Your task to perform on an android device: open the mobile data screen to see how much data has been used Image 0: 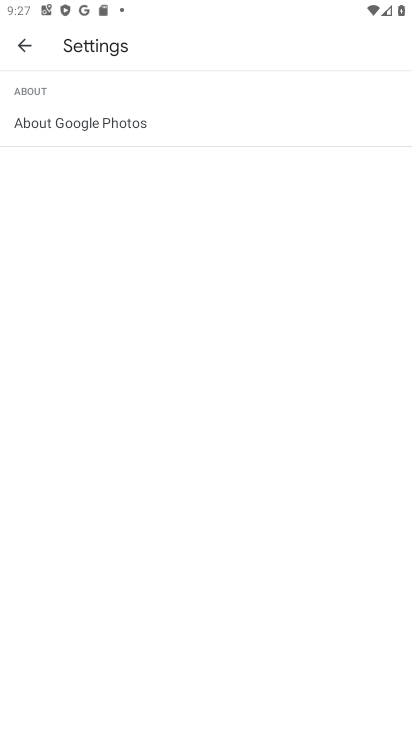
Step 0: press home button
Your task to perform on an android device: open the mobile data screen to see how much data has been used Image 1: 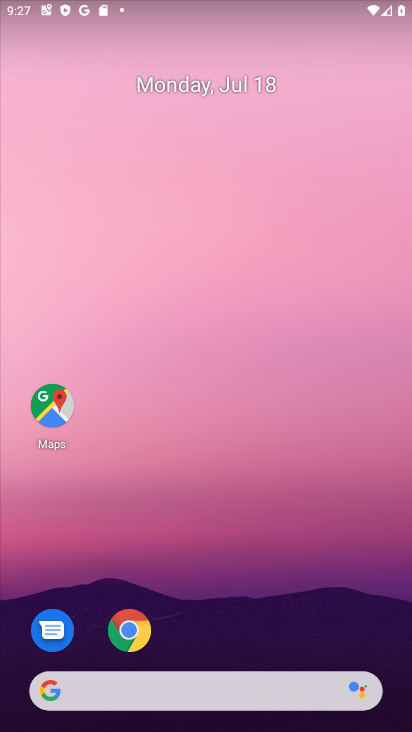
Step 1: drag from (393, 660) to (256, 58)
Your task to perform on an android device: open the mobile data screen to see how much data has been used Image 2: 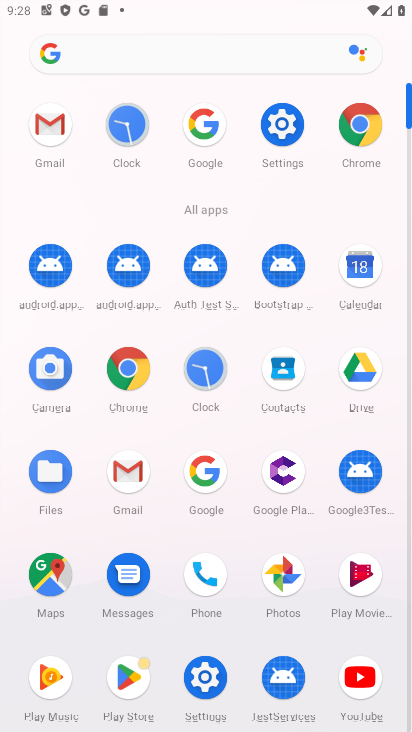
Step 2: click (289, 120)
Your task to perform on an android device: open the mobile data screen to see how much data has been used Image 3: 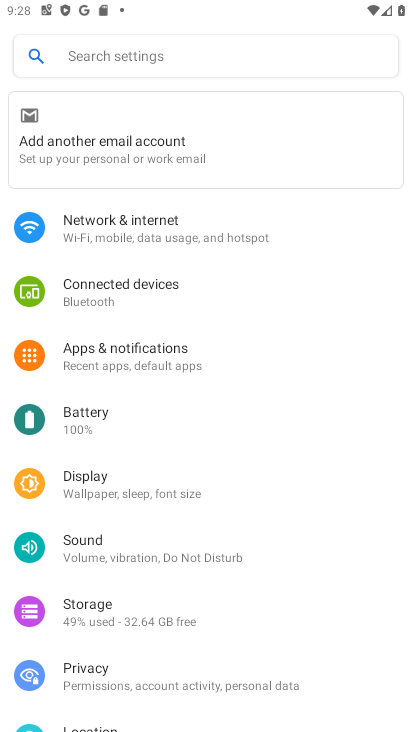
Step 3: click (170, 244)
Your task to perform on an android device: open the mobile data screen to see how much data has been used Image 4: 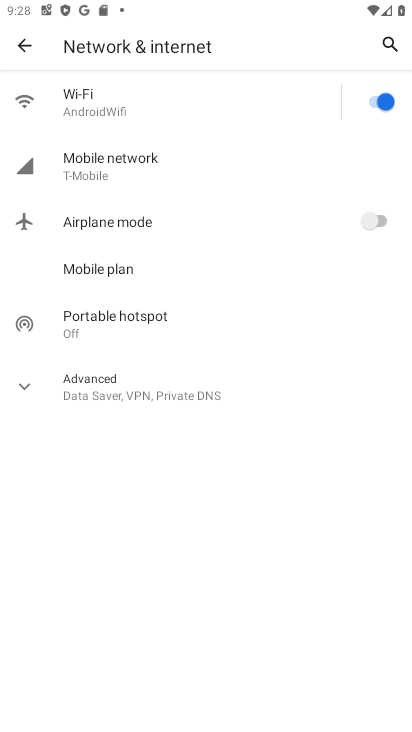
Step 4: click (136, 173)
Your task to perform on an android device: open the mobile data screen to see how much data has been used Image 5: 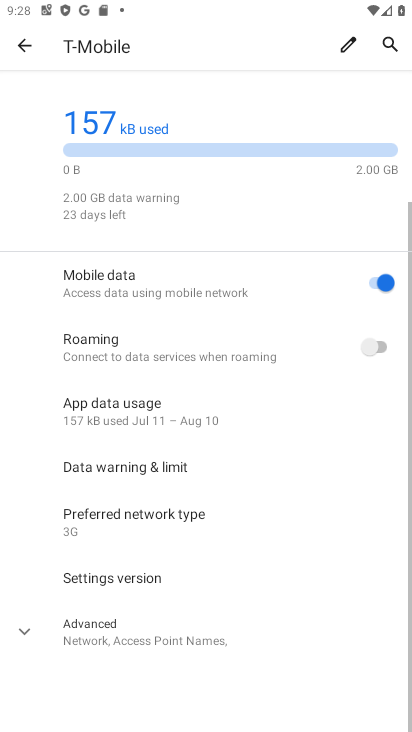
Step 5: click (174, 405)
Your task to perform on an android device: open the mobile data screen to see how much data has been used Image 6: 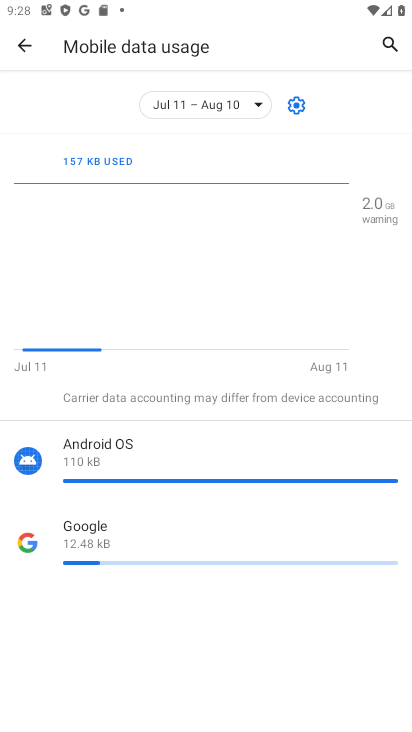
Step 6: task complete